Your task to perform on an android device: add a label to a message in the gmail app Image 0: 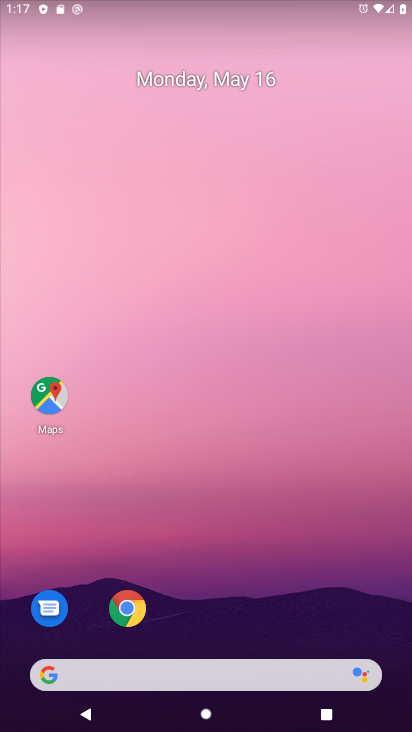
Step 0: drag from (269, 550) to (308, 91)
Your task to perform on an android device: add a label to a message in the gmail app Image 1: 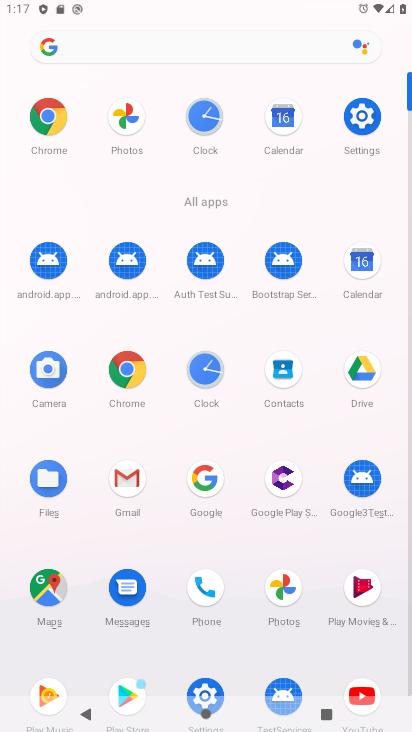
Step 1: click (133, 492)
Your task to perform on an android device: add a label to a message in the gmail app Image 2: 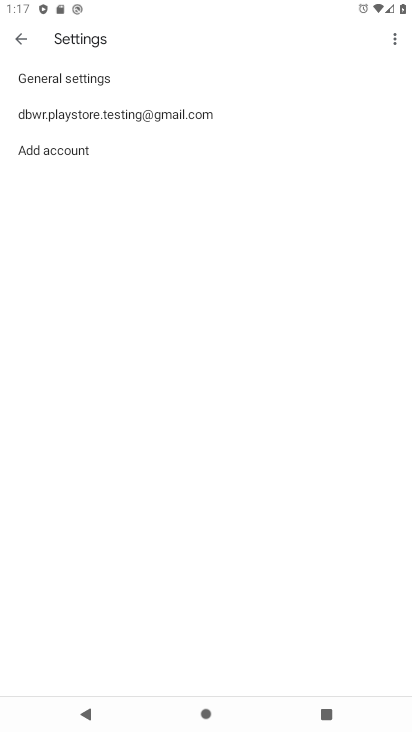
Step 2: press back button
Your task to perform on an android device: add a label to a message in the gmail app Image 3: 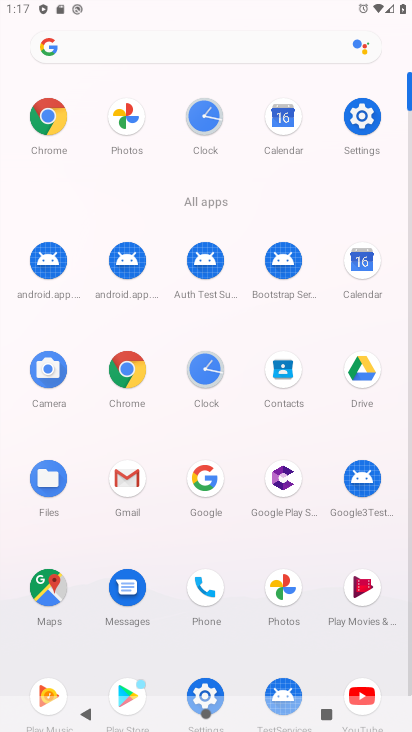
Step 3: click (140, 475)
Your task to perform on an android device: add a label to a message in the gmail app Image 4: 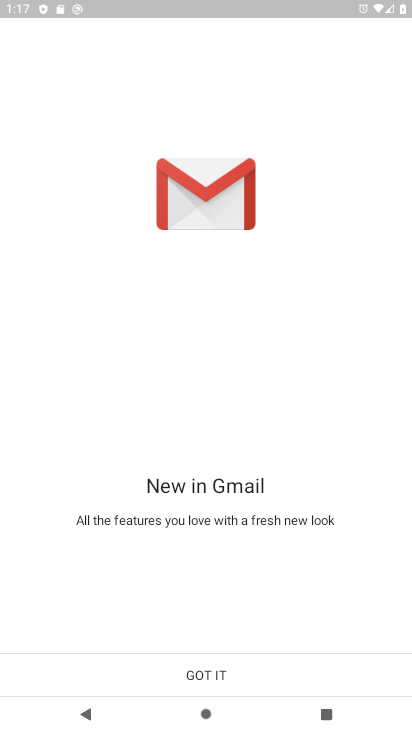
Step 4: click (222, 670)
Your task to perform on an android device: add a label to a message in the gmail app Image 5: 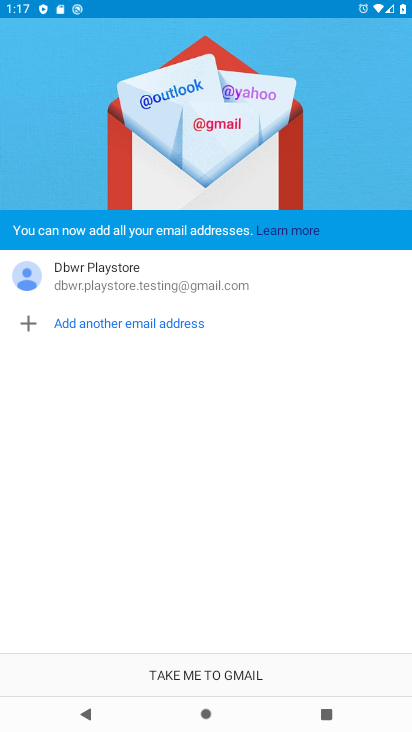
Step 5: click (221, 671)
Your task to perform on an android device: add a label to a message in the gmail app Image 6: 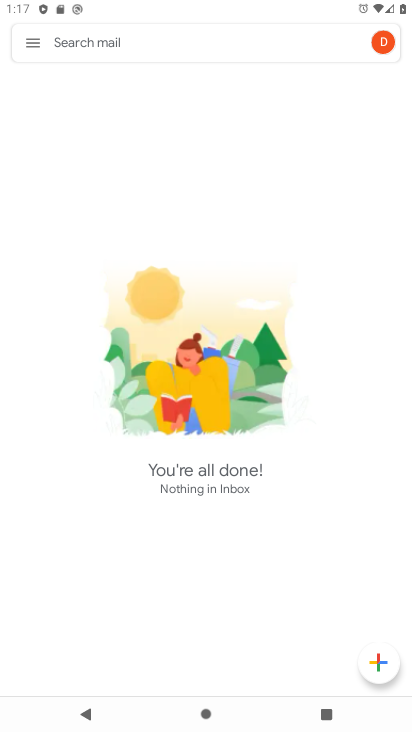
Step 6: click (33, 37)
Your task to perform on an android device: add a label to a message in the gmail app Image 7: 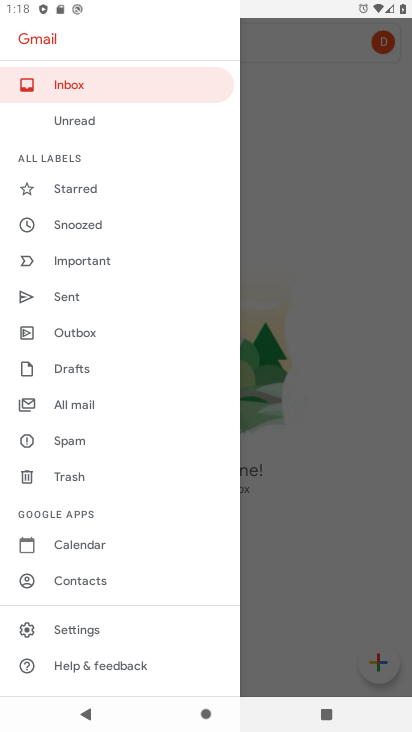
Step 7: click (312, 254)
Your task to perform on an android device: add a label to a message in the gmail app Image 8: 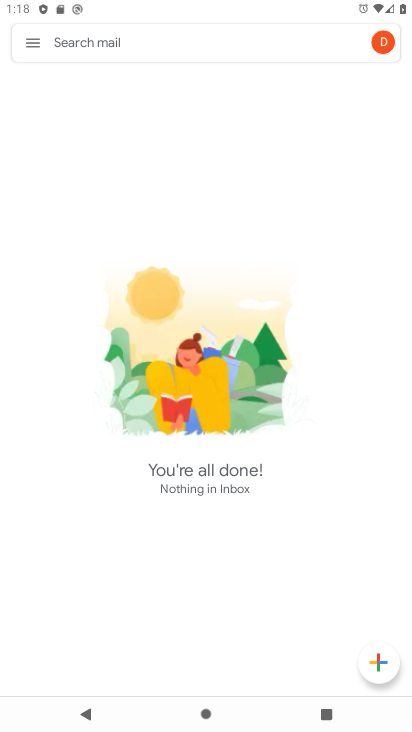
Step 8: task complete